Your task to perform on an android device: see sites visited before in the chrome app Image 0: 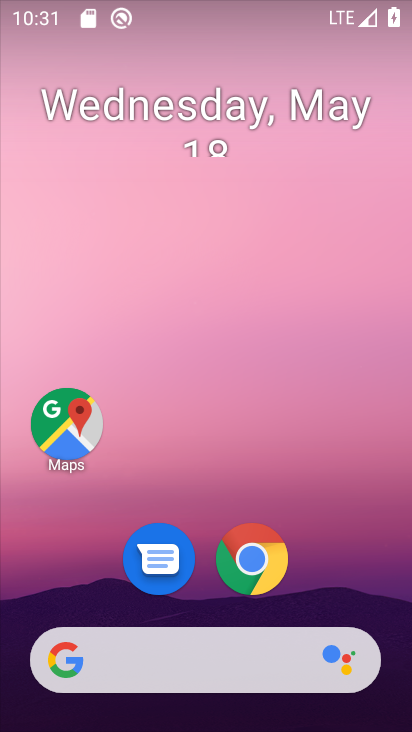
Step 0: drag from (208, 542) to (268, 127)
Your task to perform on an android device: see sites visited before in the chrome app Image 1: 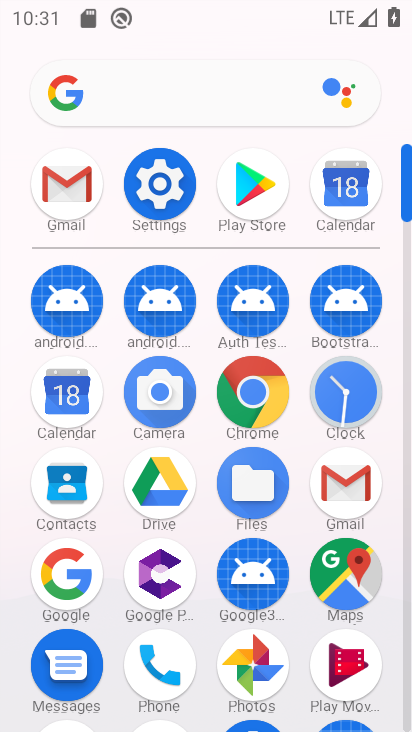
Step 1: click (248, 394)
Your task to perform on an android device: see sites visited before in the chrome app Image 2: 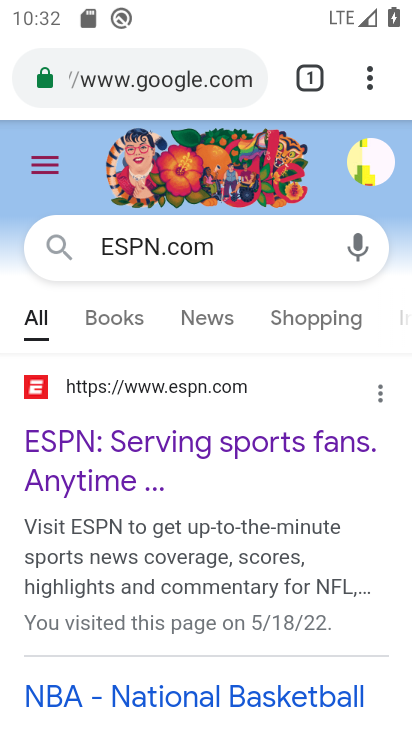
Step 2: click (374, 74)
Your task to perform on an android device: see sites visited before in the chrome app Image 3: 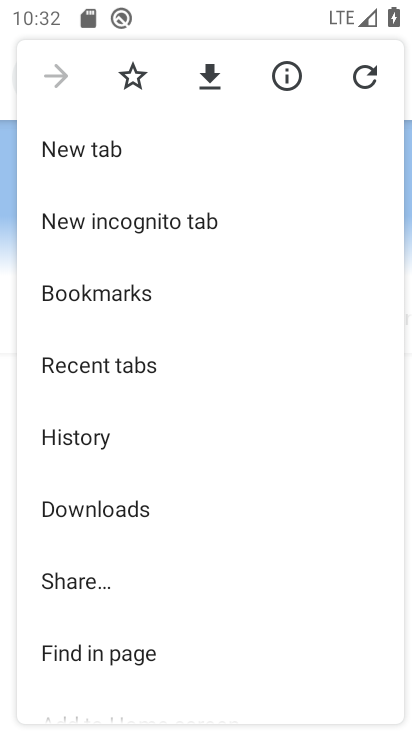
Step 3: click (91, 439)
Your task to perform on an android device: see sites visited before in the chrome app Image 4: 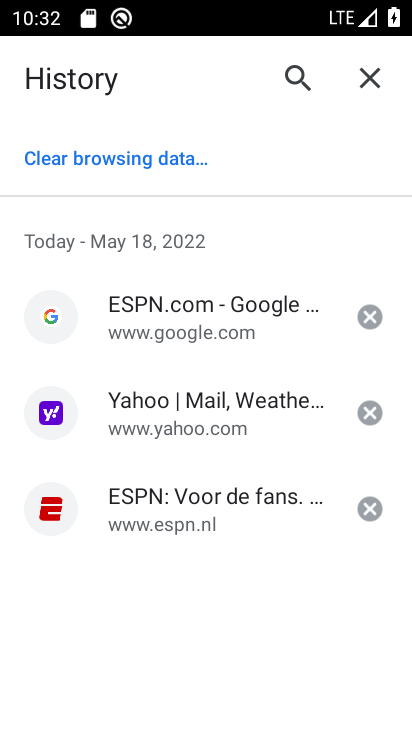
Step 4: task complete